Your task to perform on an android device: When is my next meeting? Image 0: 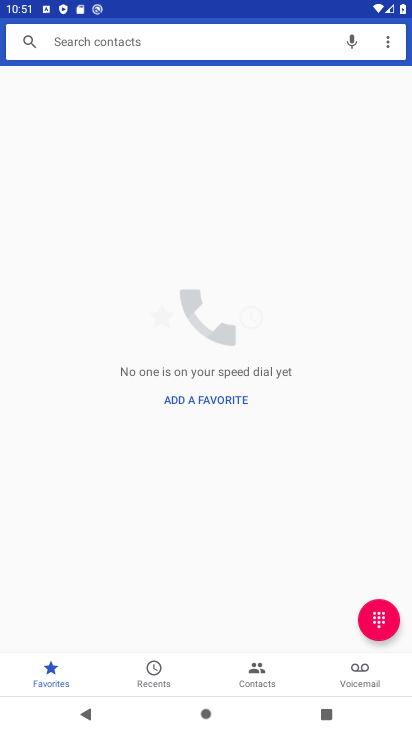
Step 0: task complete